Your task to perform on an android device: Open calendar and show me the third week of next month Image 0: 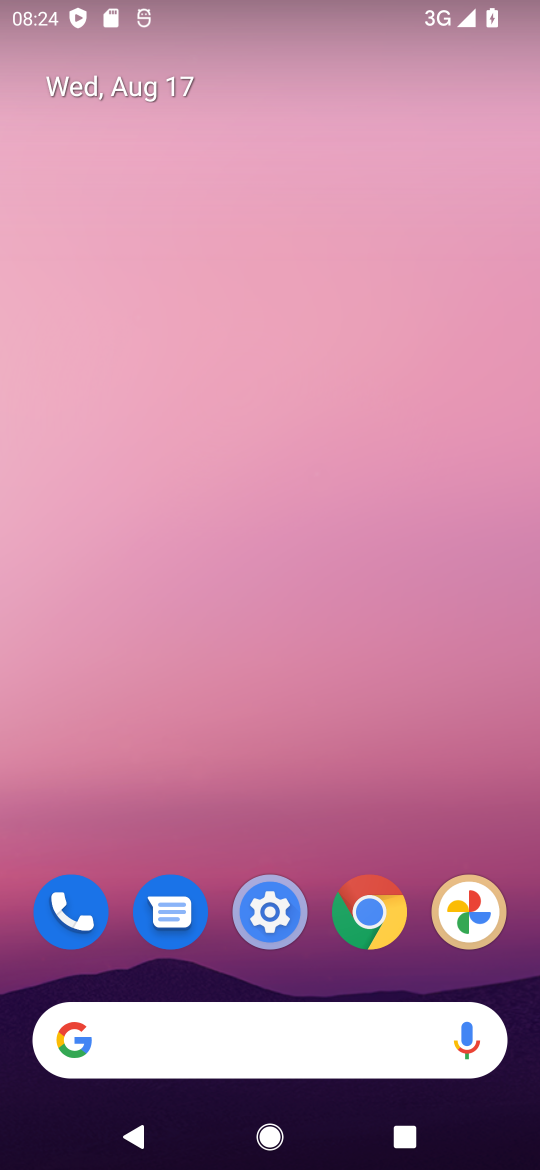
Step 0: drag from (268, 850) to (234, 136)
Your task to perform on an android device: Open calendar and show me the third week of next month Image 1: 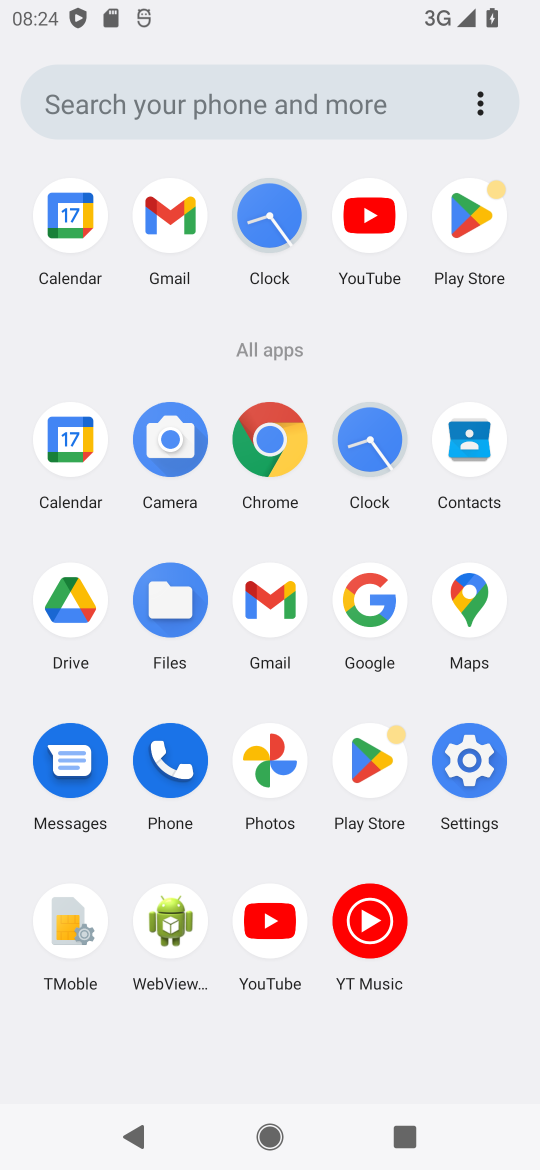
Step 1: click (66, 429)
Your task to perform on an android device: Open calendar and show me the third week of next month Image 2: 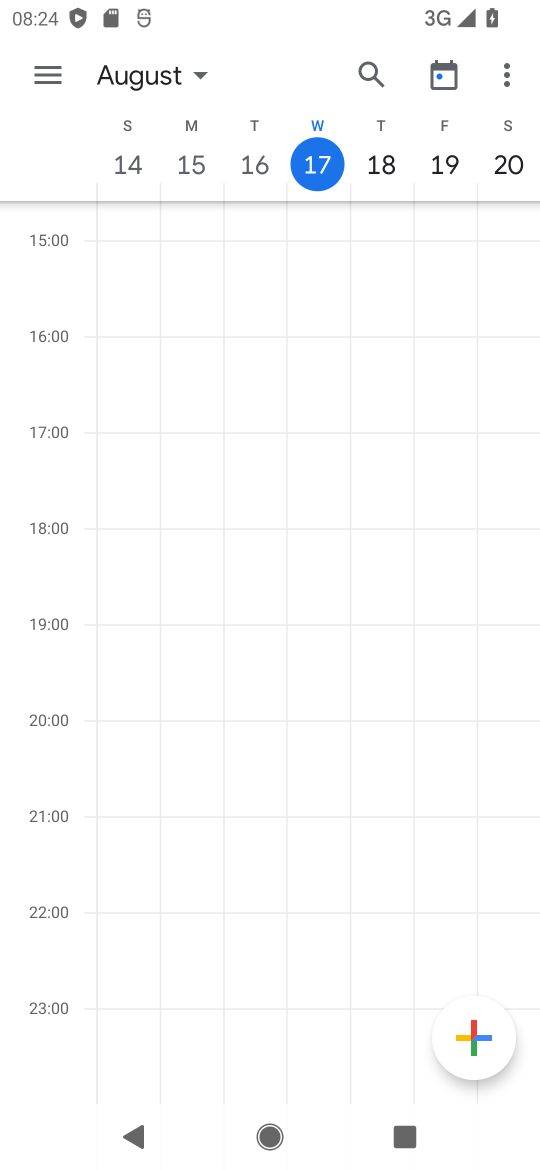
Step 2: click (136, 80)
Your task to perform on an android device: Open calendar and show me the third week of next month Image 3: 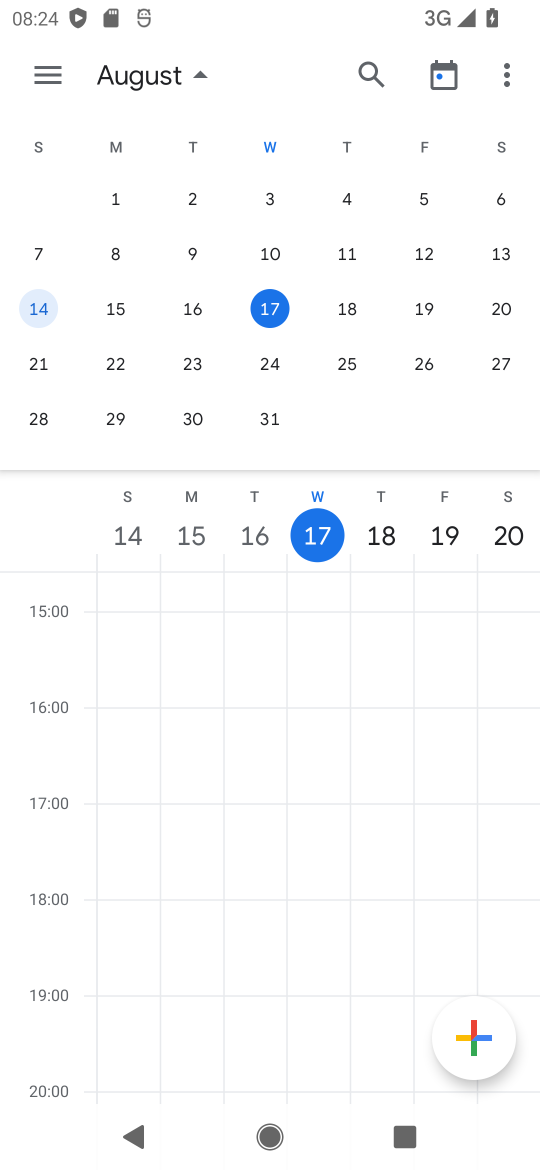
Step 3: click (50, 66)
Your task to perform on an android device: Open calendar and show me the third week of next month Image 4: 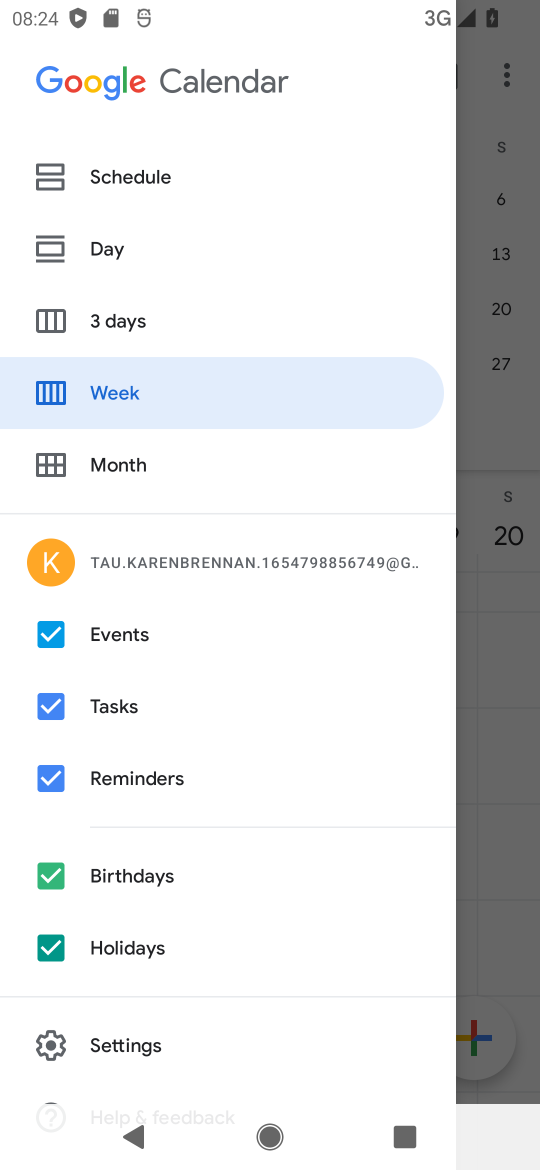
Step 4: click (158, 178)
Your task to perform on an android device: Open calendar and show me the third week of next month Image 5: 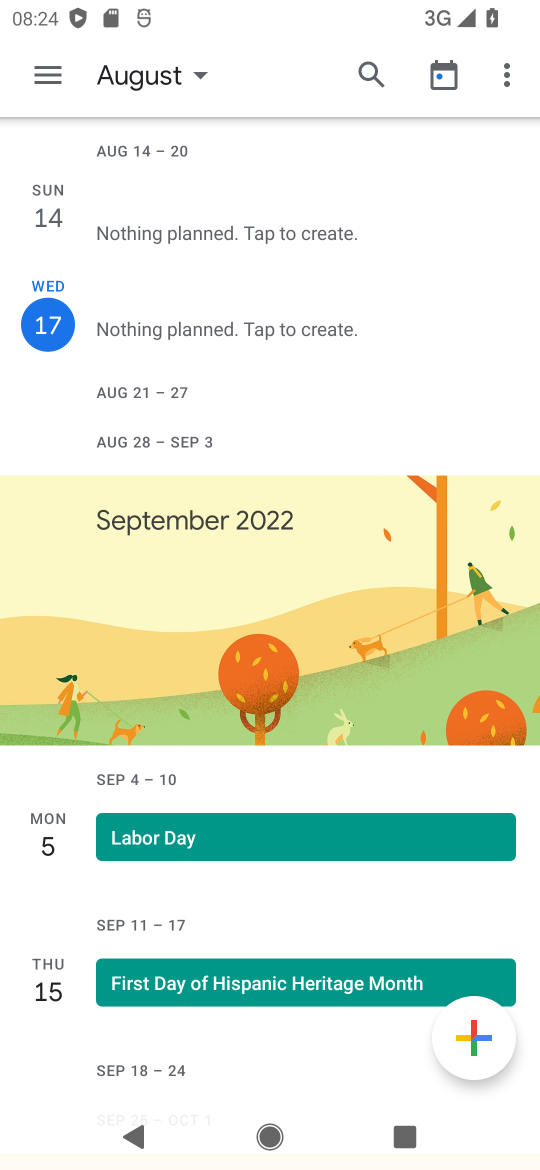
Step 5: click (168, 71)
Your task to perform on an android device: Open calendar and show me the third week of next month Image 6: 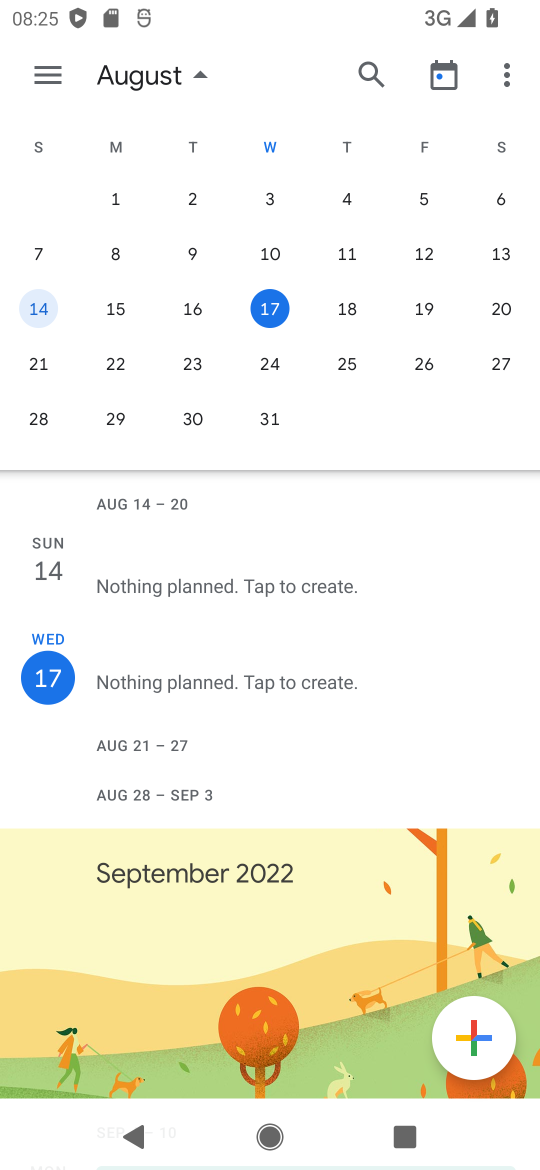
Step 6: drag from (479, 404) to (0, 426)
Your task to perform on an android device: Open calendar and show me the third week of next month Image 7: 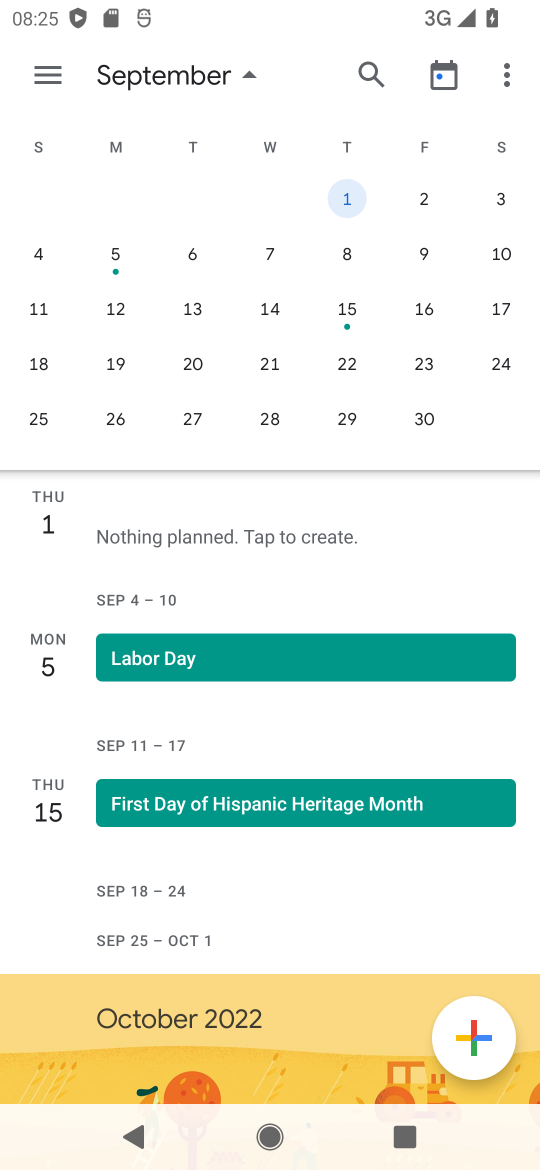
Step 7: click (40, 303)
Your task to perform on an android device: Open calendar and show me the third week of next month Image 8: 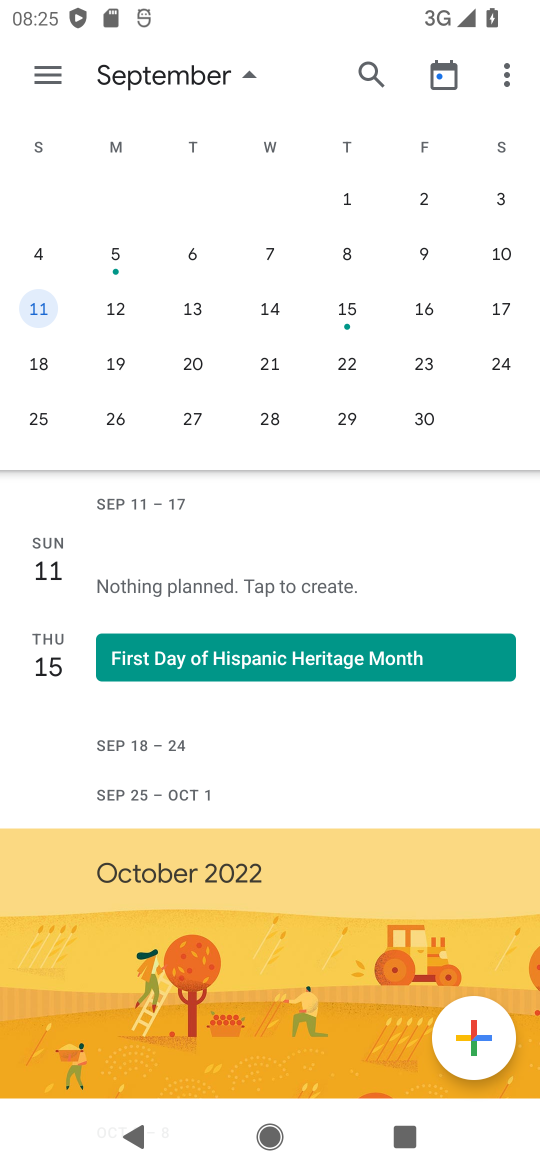
Step 8: task complete